Your task to perform on an android device: allow cookies in the chrome app Image 0: 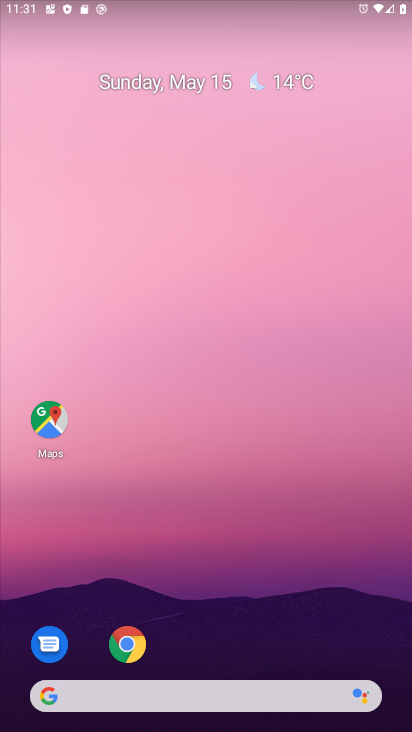
Step 0: click (122, 647)
Your task to perform on an android device: allow cookies in the chrome app Image 1: 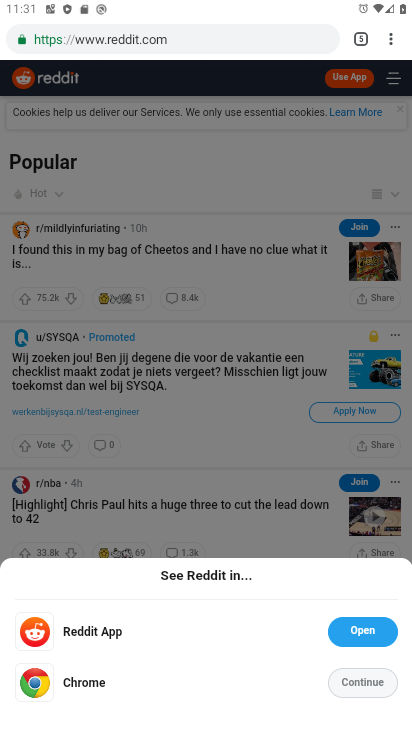
Step 1: click (388, 58)
Your task to perform on an android device: allow cookies in the chrome app Image 2: 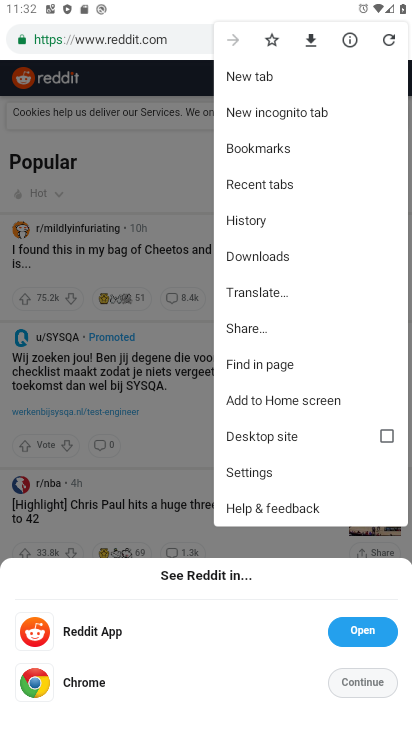
Step 2: click (253, 462)
Your task to perform on an android device: allow cookies in the chrome app Image 3: 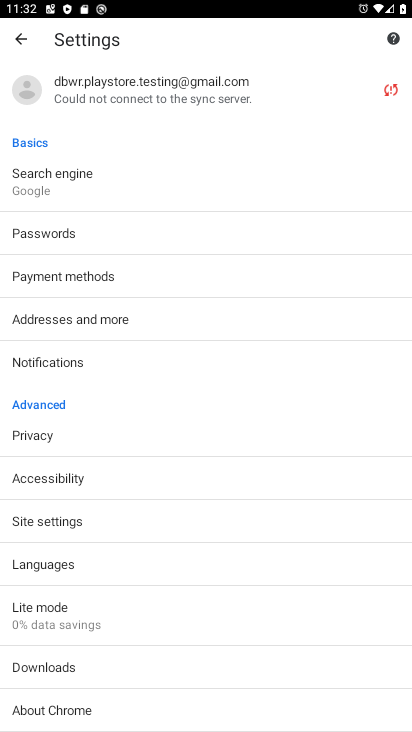
Step 3: drag from (138, 574) to (94, 363)
Your task to perform on an android device: allow cookies in the chrome app Image 4: 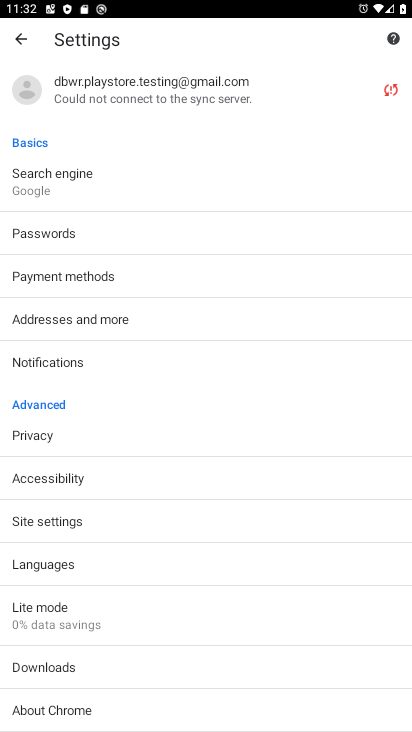
Step 4: click (74, 525)
Your task to perform on an android device: allow cookies in the chrome app Image 5: 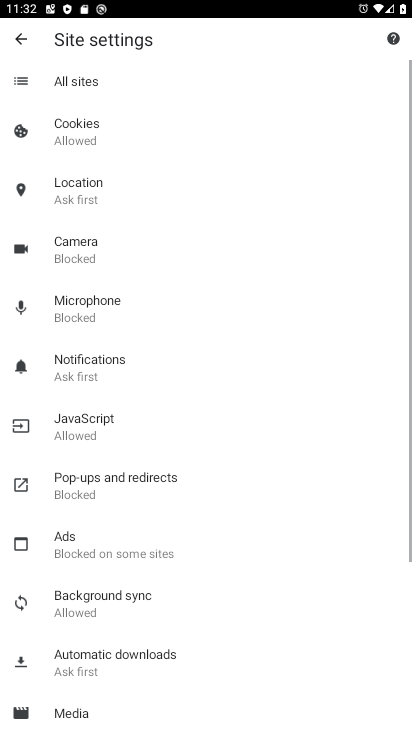
Step 5: click (149, 135)
Your task to perform on an android device: allow cookies in the chrome app Image 6: 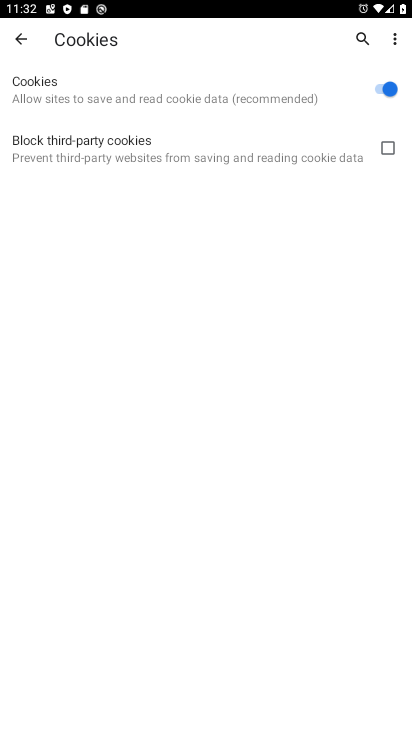
Step 6: task complete